Your task to perform on an android device: all mails in gmail Image 0: 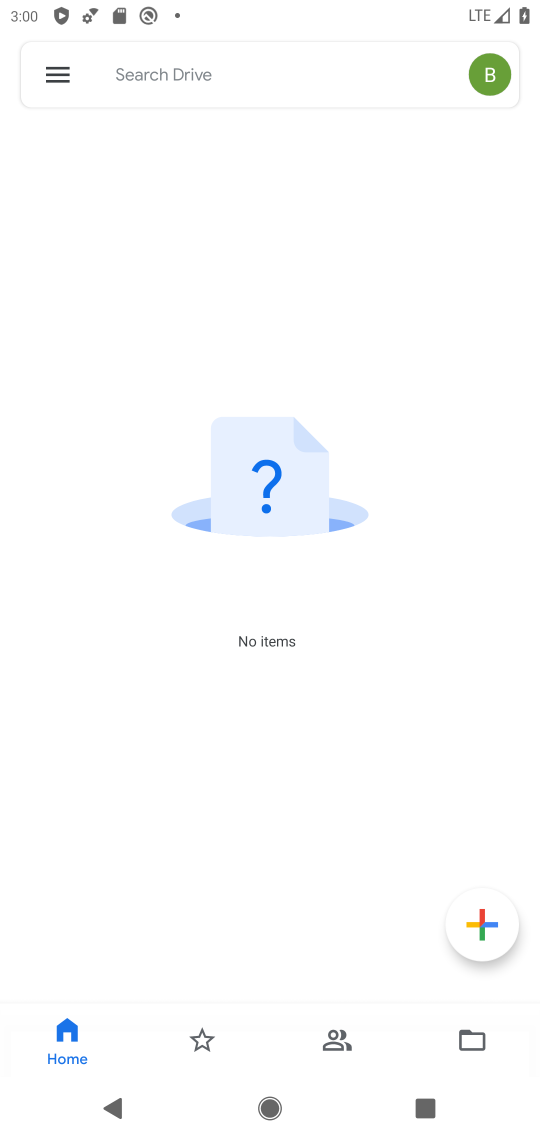
Step 0: press home button
Your task to perform on an android device: all mails in gmail Image 1: 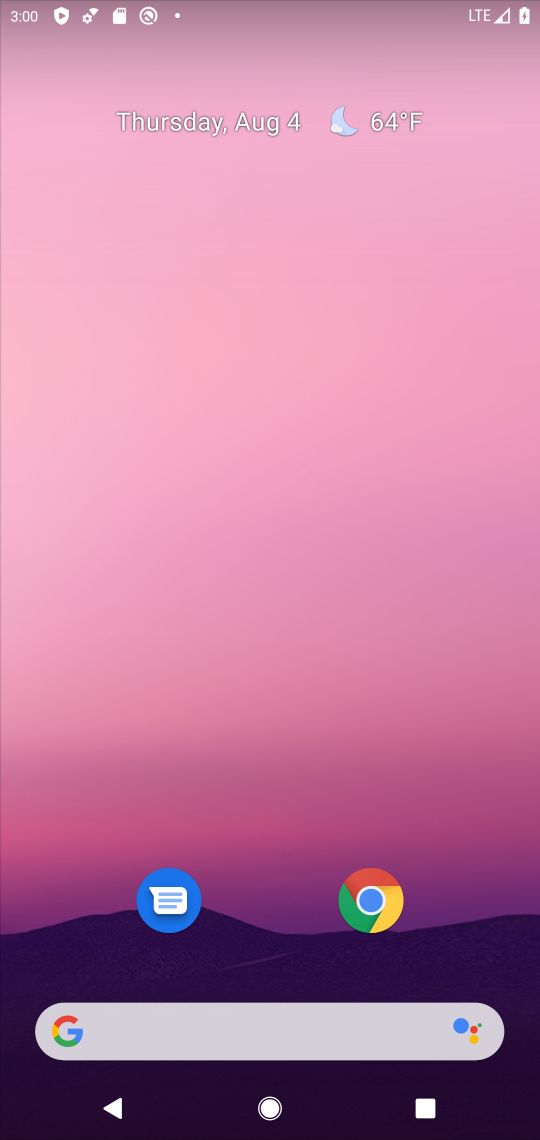
Step 1: drag from (521, 983) to (284, 149)
Your task to perform on an android device: all mails in gmail Image 2: 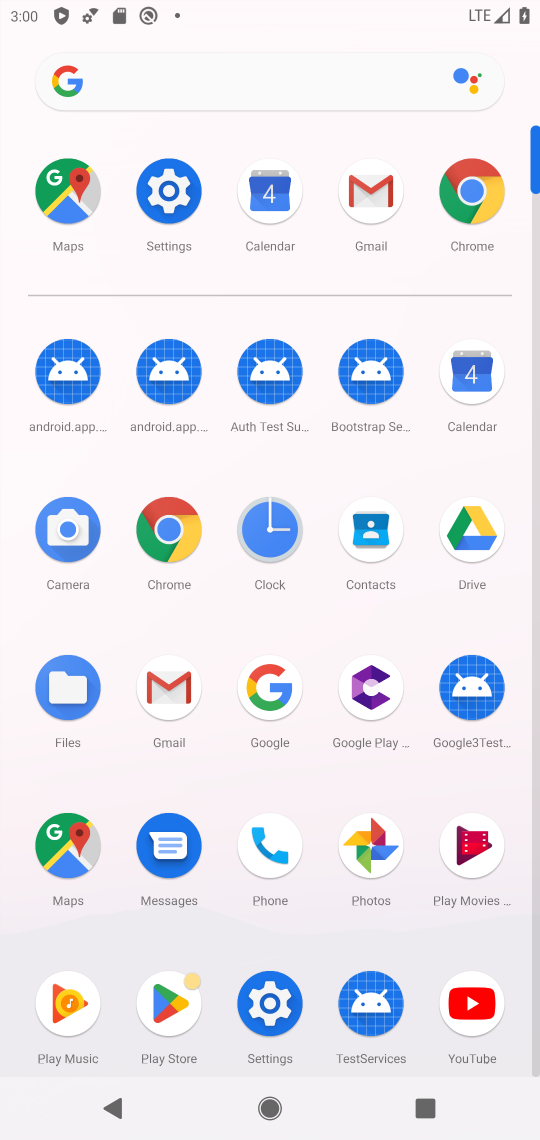
Step 2: click (372, 204)
Your task to perform on an android device: all mails in gmail Image 3: 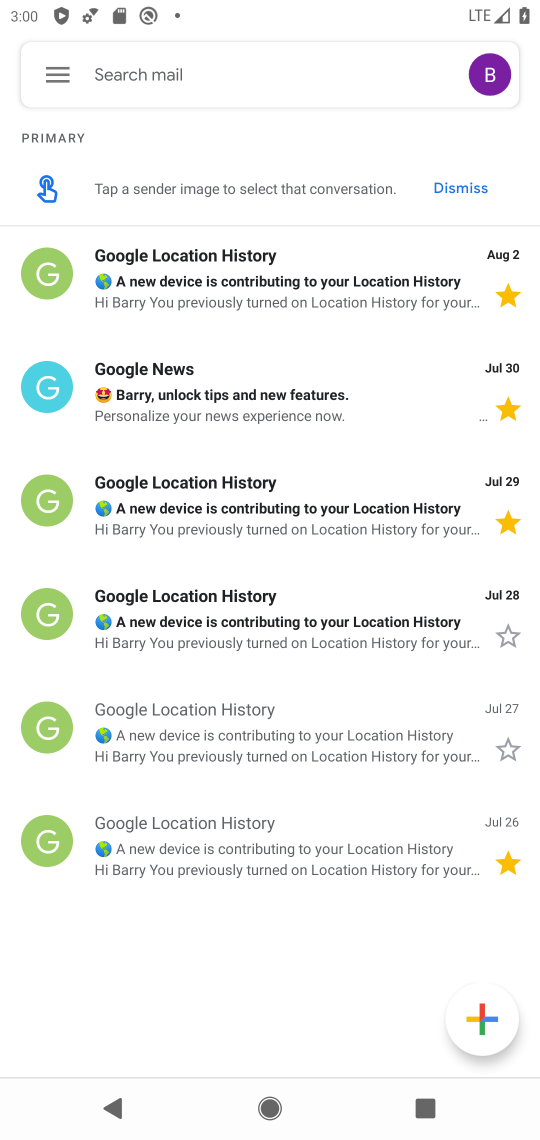
Step 3: click (44, 77)
Your task to perform on an android device: all mails in gmail Image 4: 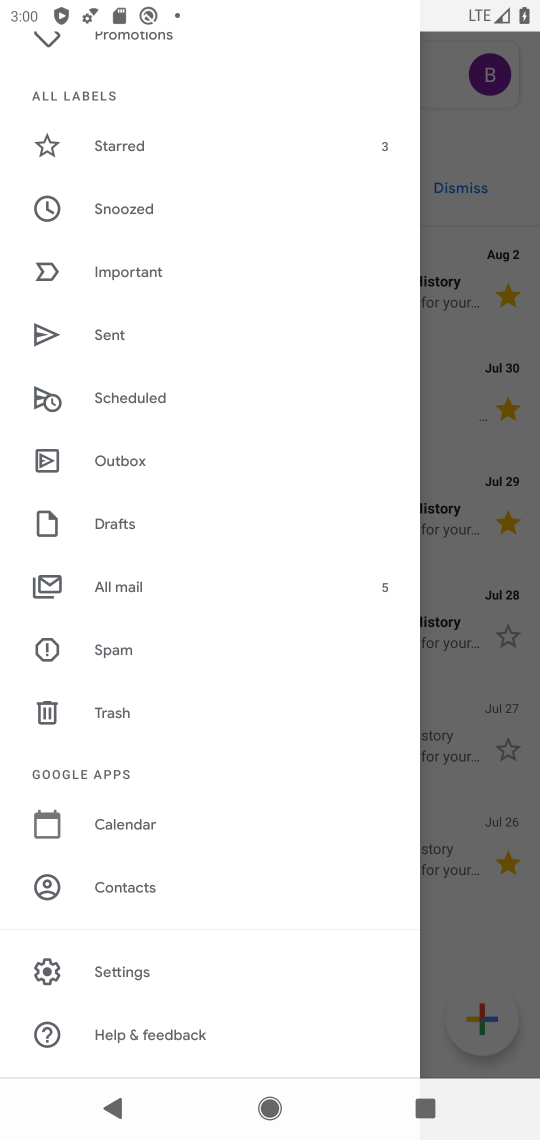
Step 4: click (141, 585)
Your task to perform on an android device: all mails in gmail Image 5: 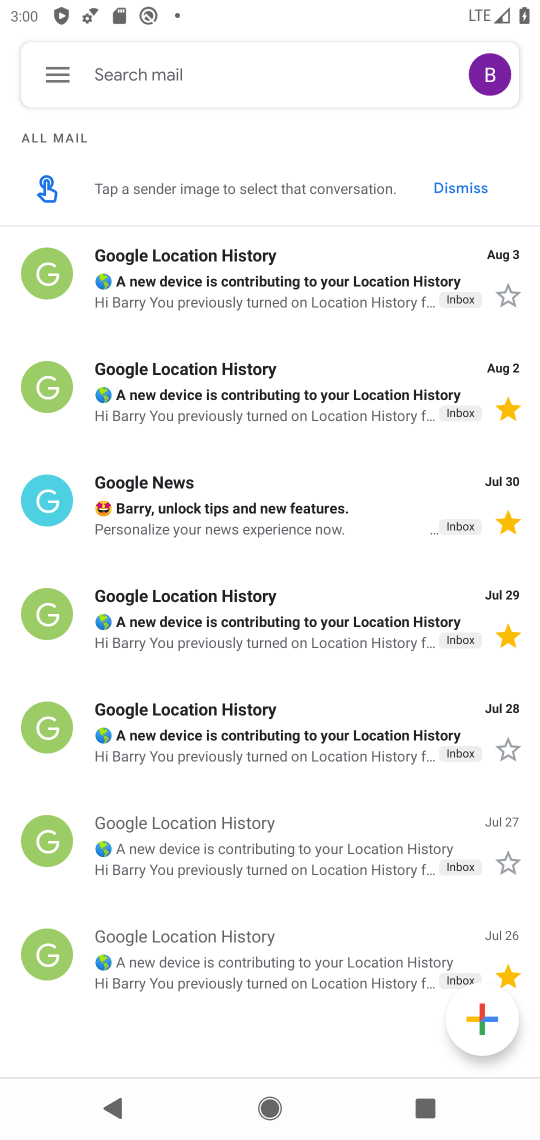
Step 5: task complete